Your task to perform on an android device: Check the news Image 0: 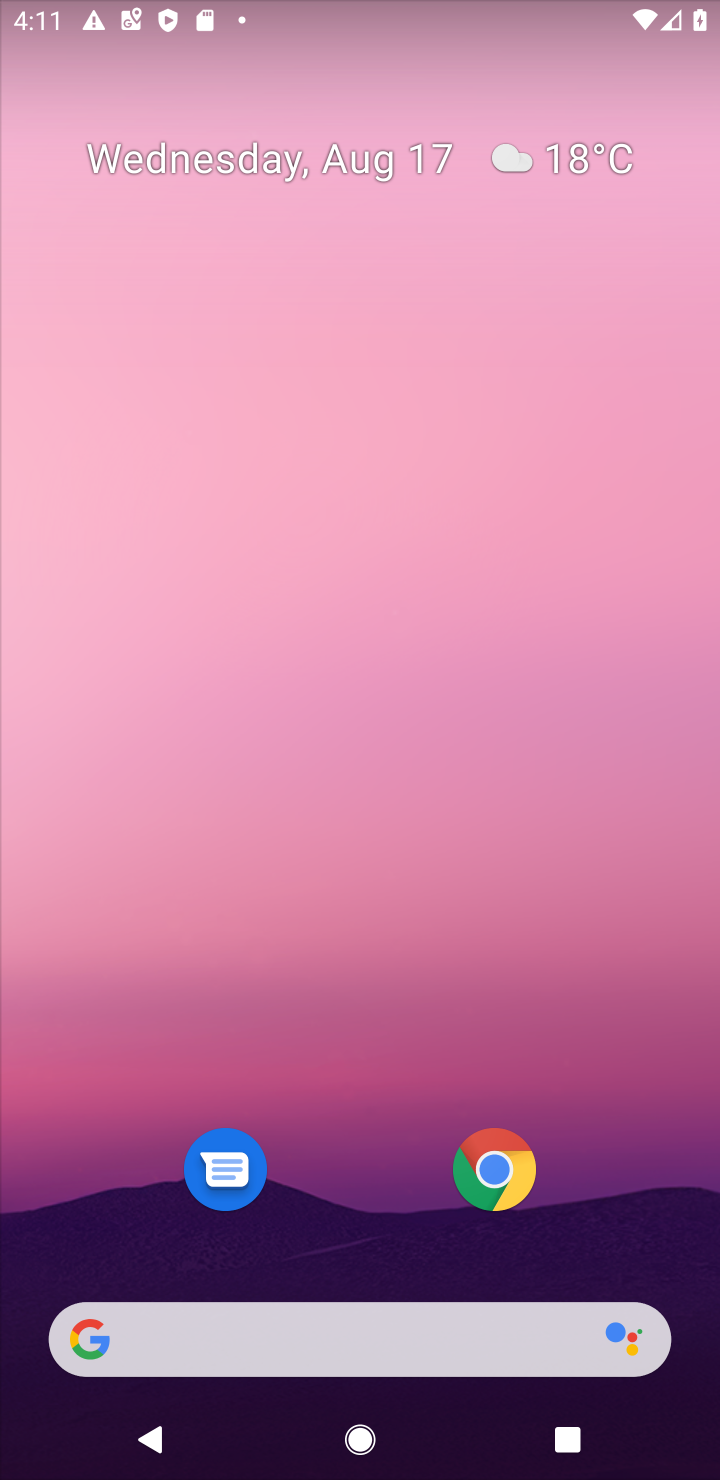
Step 0: drag from (246, 421) to (257, 82)
Your task to perform on an android device: Check the news Image 1: 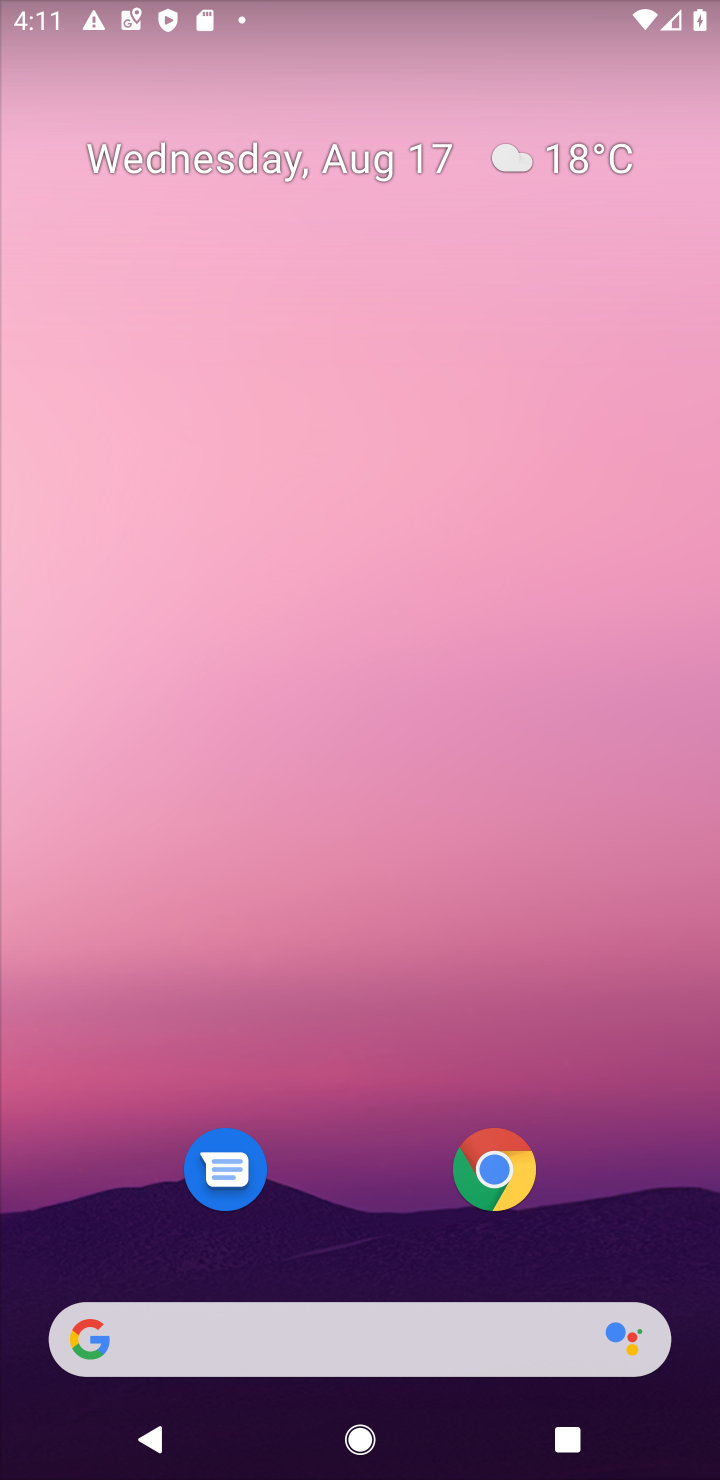
Step 1: click (469, 1175)
Your task to perform on an android device: Check the news Image 2: 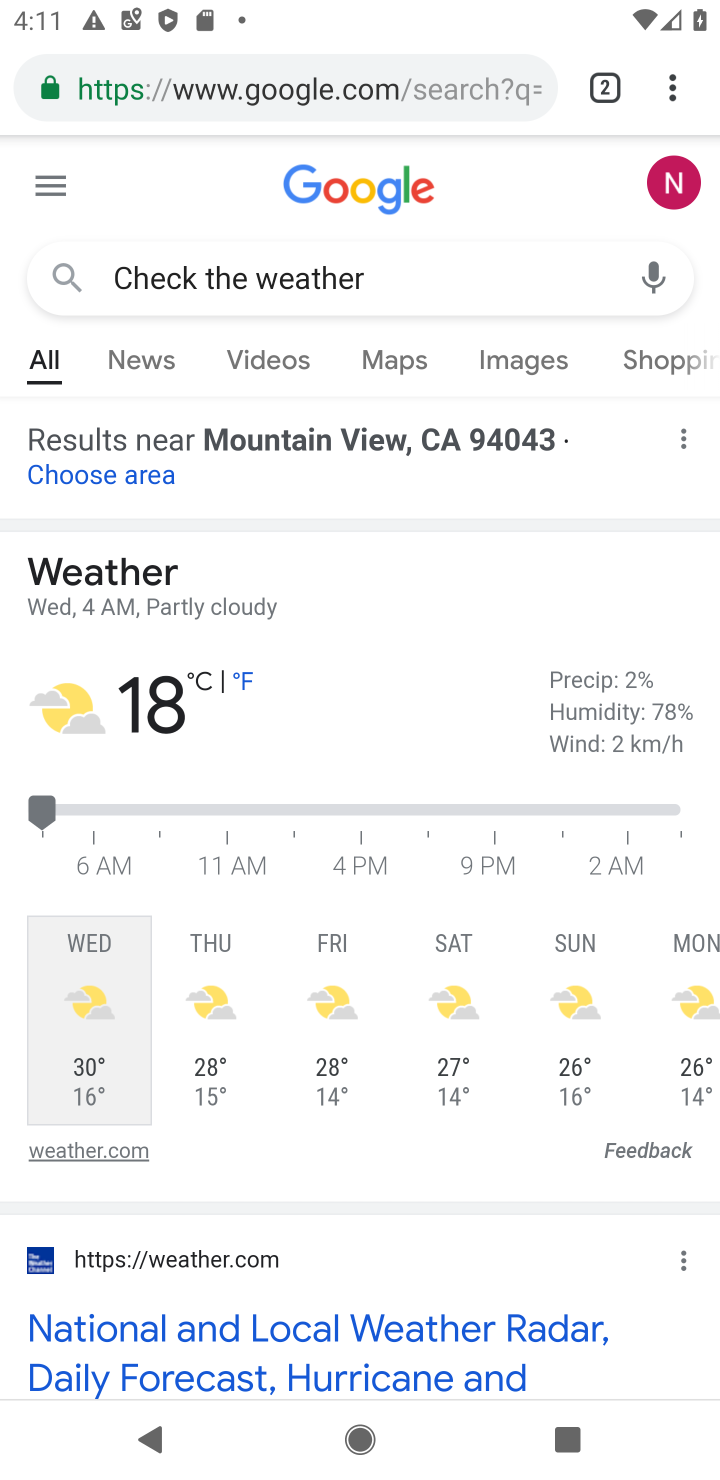
Step 2: click (268, 91)
Your task to perform on an android device: Check the news Image 3: 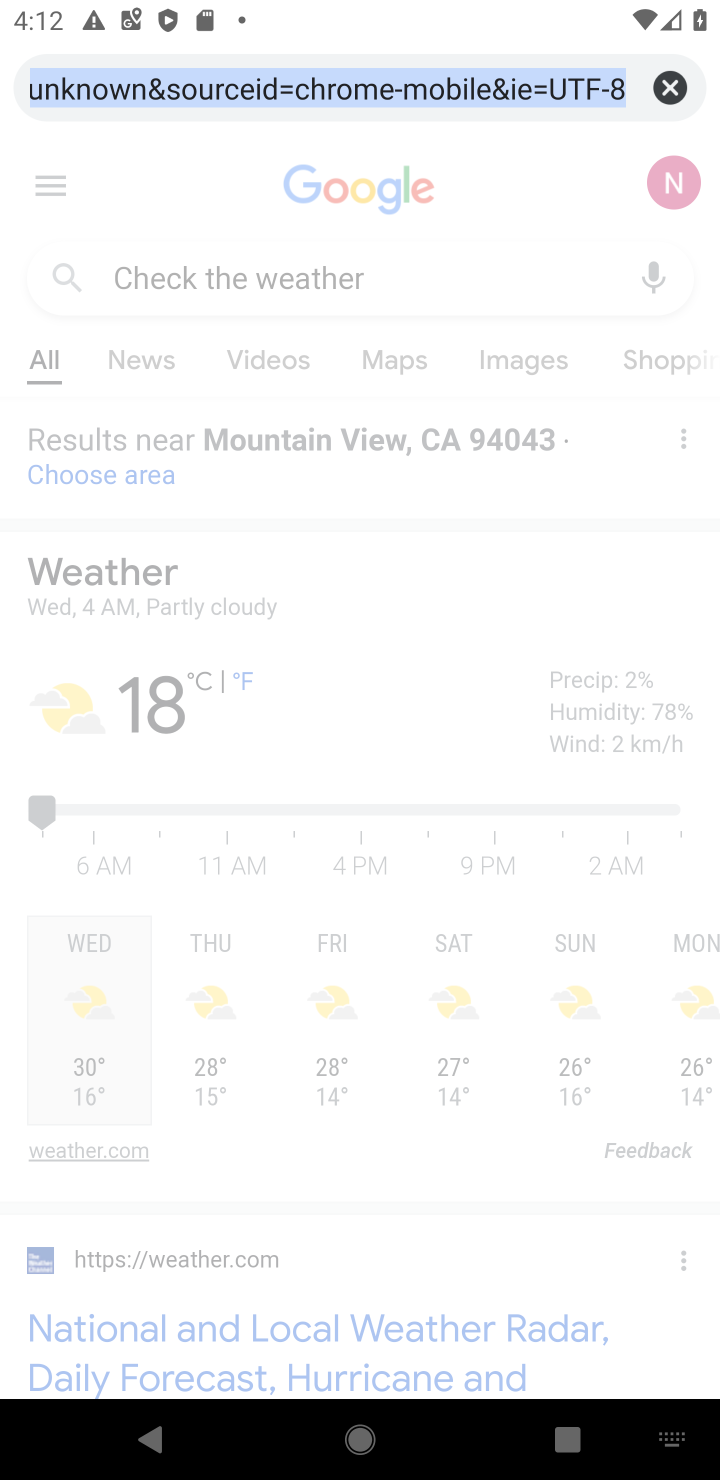
Step 3: type "Check the news"
Your task to perform on an android device: Check the news Image 4: 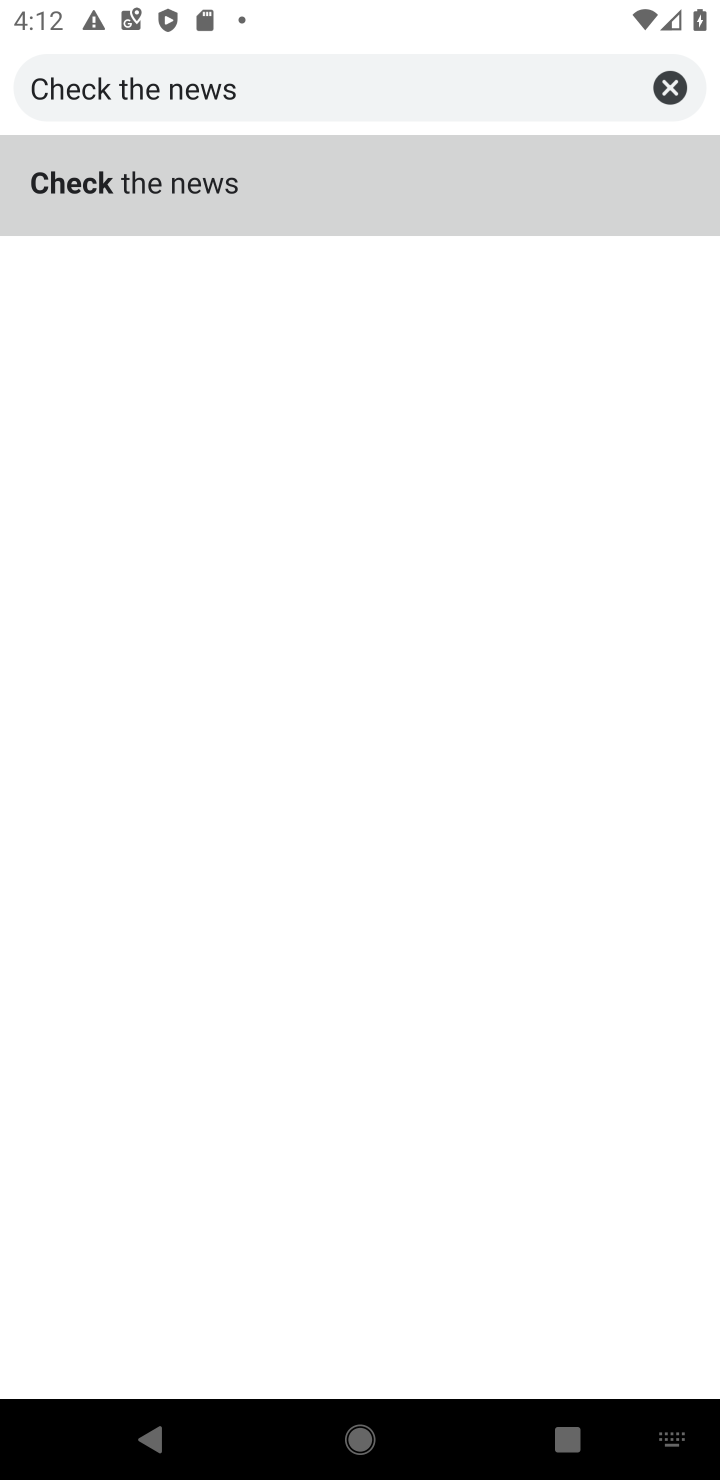
Step 4: click (155, 179)
Your task to perform on an android device: Check the news Image 5: 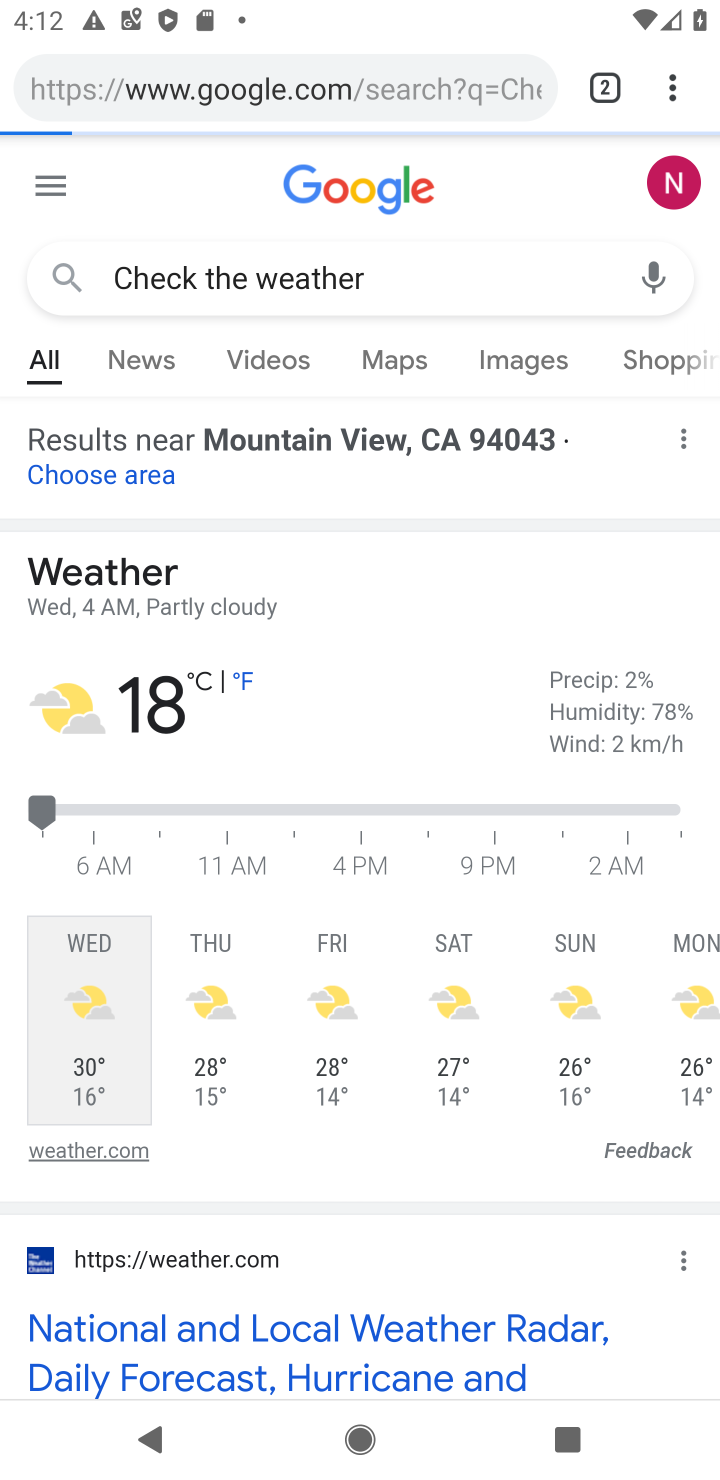
Step 5: task complete